Your task to perform on an android device: turn on wifi Image 0: 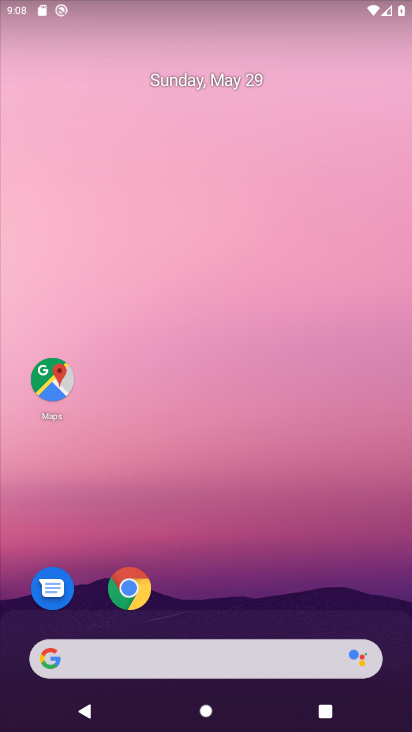
Step 0: drag from (282, 32) to (227, 429)
Your task to perform on an android device: turn on wifi Image 1: 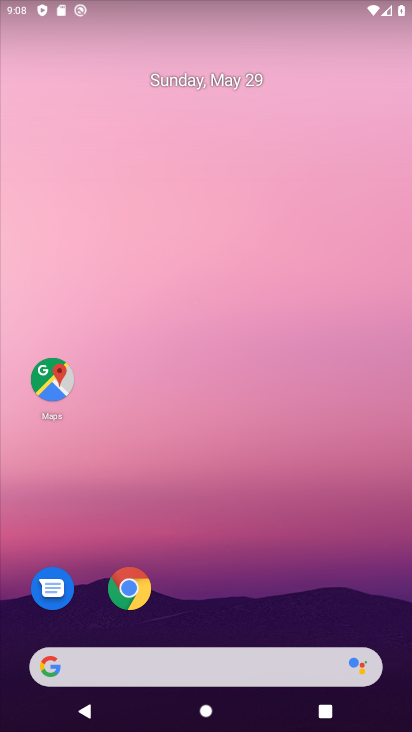
Step 1: task complete